Your task to perform on an android device: turn off wifi Image 0: 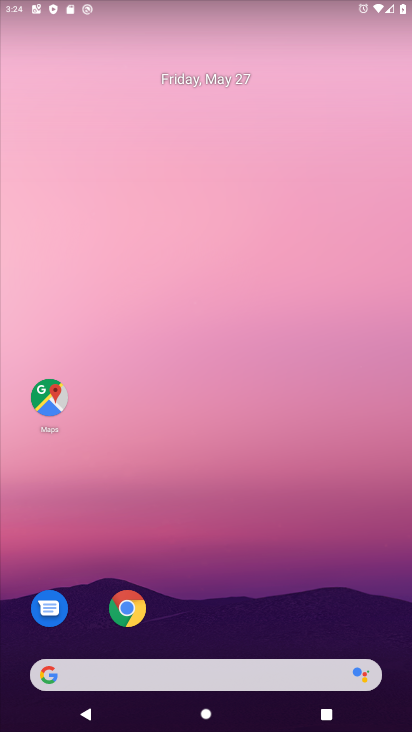
Step 0: drag from (212, 602) to (199, 224)
Your task to perform on an android device: turn off wifi Image 1: 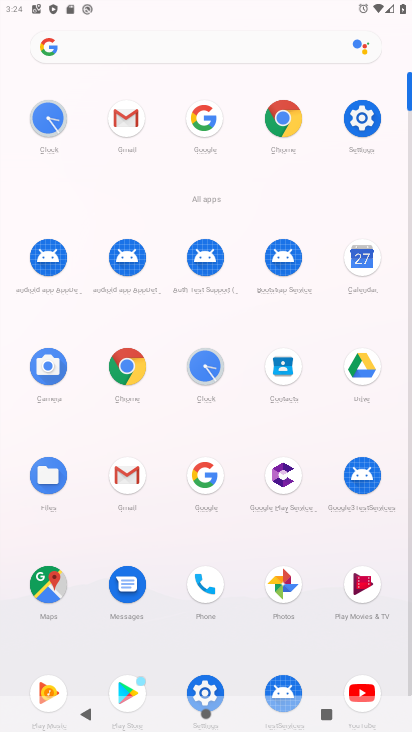
Step 1: click (366, 121)
Your task to perform on an android device: turn off wifi Image 2: 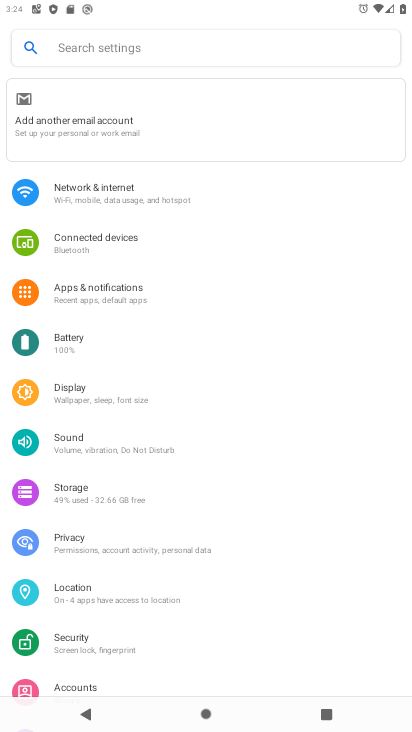
Step 2: click (108, 200)
Your task to perform on an android device: turn off wifi Image 3: 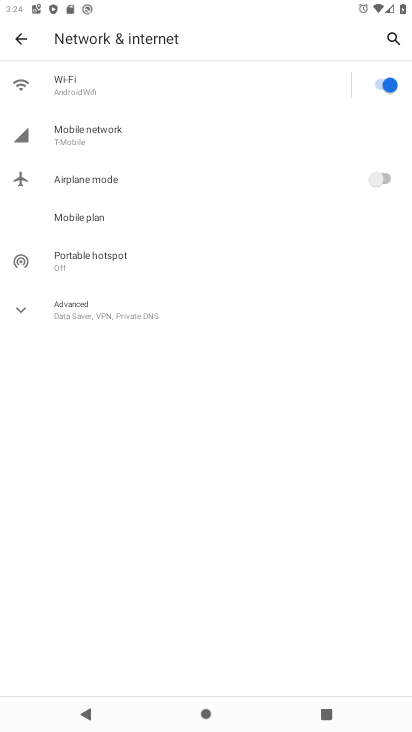
Step 3: click (378, 87)
Your task to perform on an android device: turn off wifi Image 4: 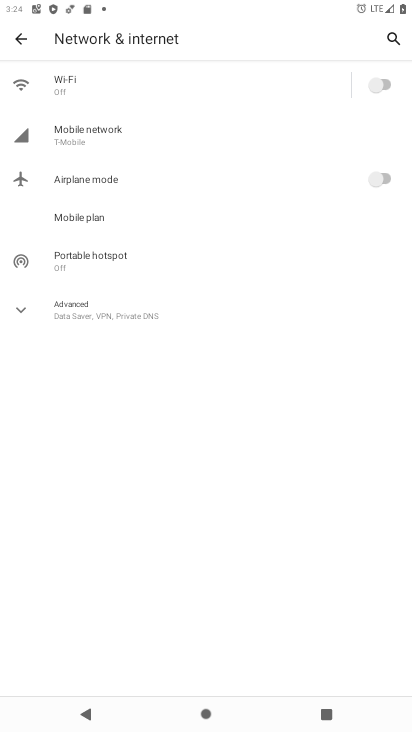
Step 4: task complete